Your task to perform on an android device: Open settings Image 0: 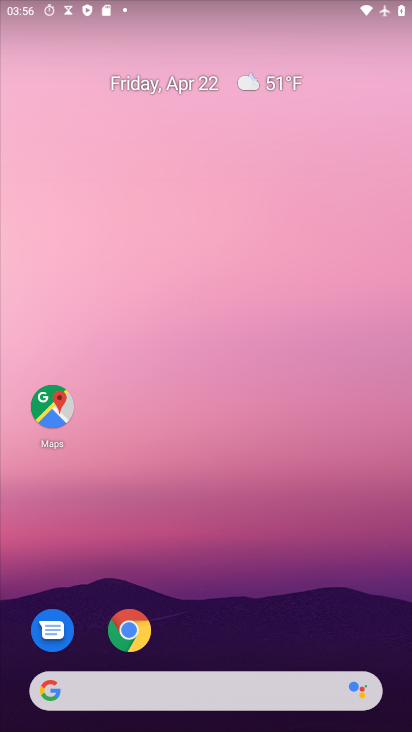
Step 0: drag from (286, 540) to (209, 44)
Your task to perform on an android device: Open settings Image 1: 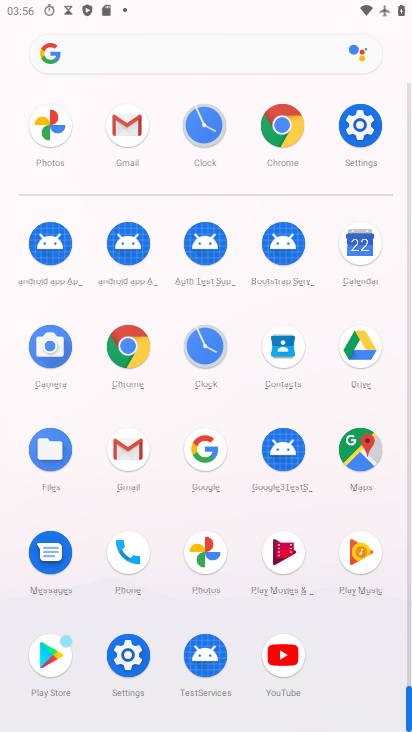
Step 1: drag from (16, 472) to (22, 253)
Your task to perform on an android device: Open settings Image 2: 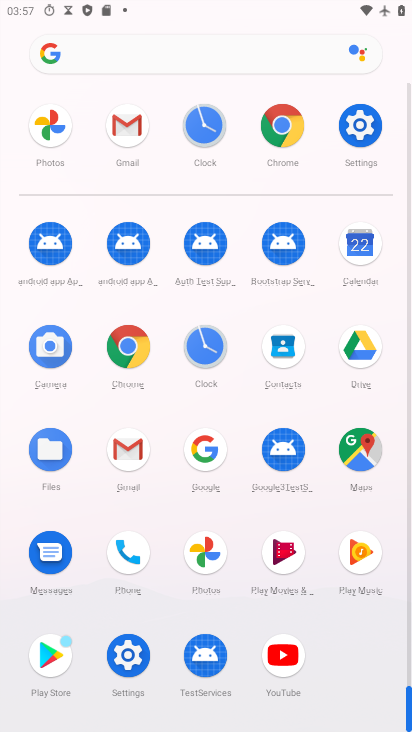
Step 2: click (125, 654)
Your task to perform on an android device: Open settings Image 3: 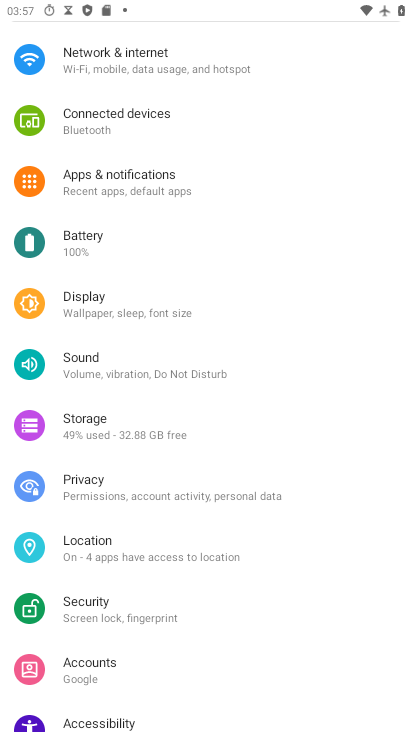
Step 3: task complete